Your task to perform on an android device: Open sound settings Image 0: 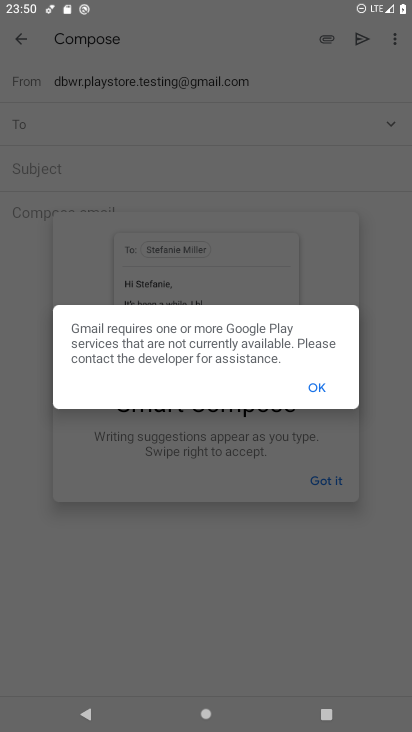
Step 0: press home button
Your task to perform on an android device: Open sound settings Image 1: 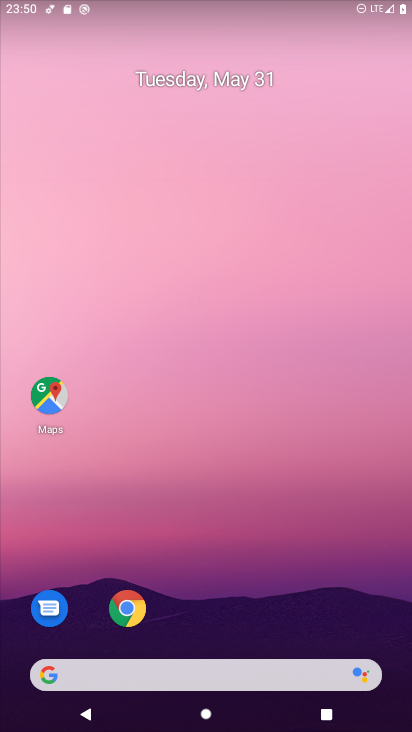
Step 1: drag from (258, 619) to (258, 65)
Your task to perform on an android device: Open sound settings Image 2: 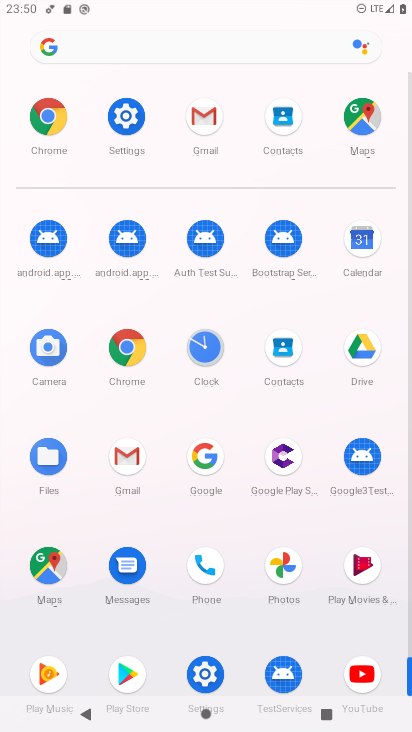
Step 2: click (111, 115)
Your task to perform on an android device: Open sound settings Image 3: 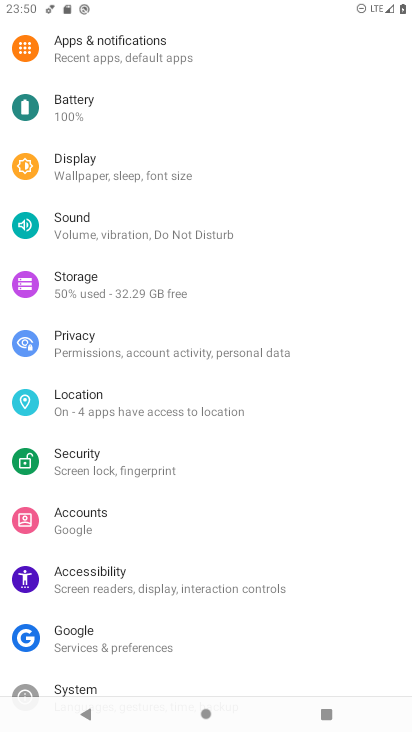
Step 3: click (119, 229)
Your task to perform on an android device: Open sound settings Image 4: 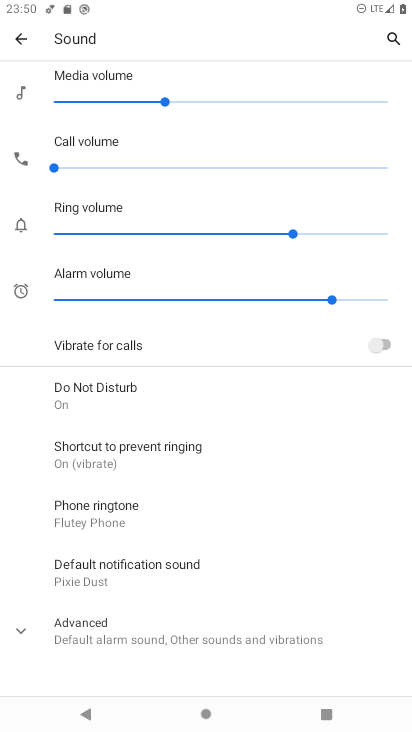
Step 4: task complete